Your task to perform on an android device: add a contact in the contacts app Image 0: 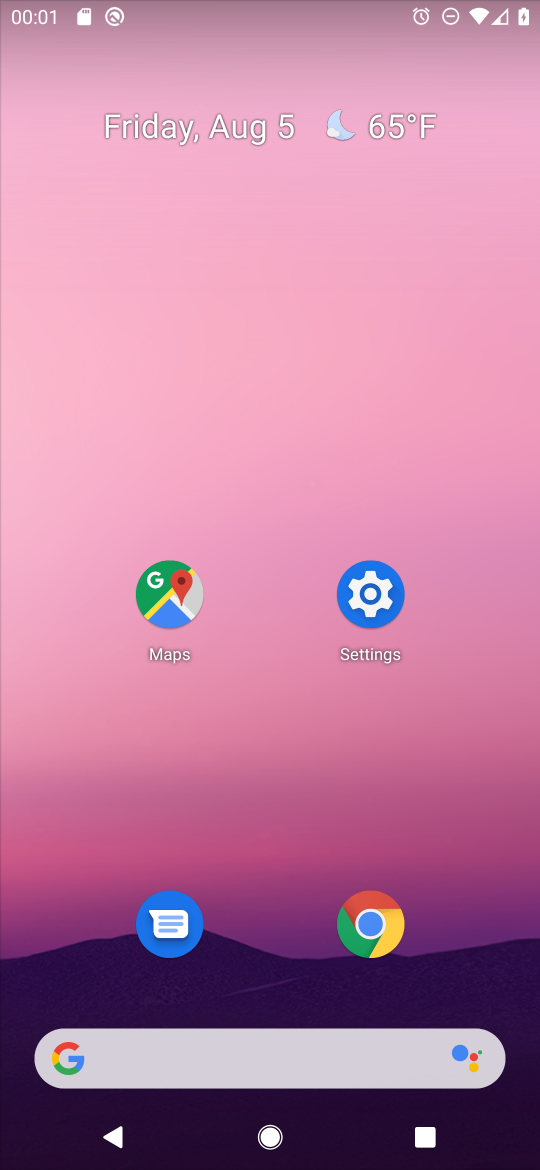
Step 0: press home button
Your task to perform on an android device: add a contact in the contacts app Image 1: 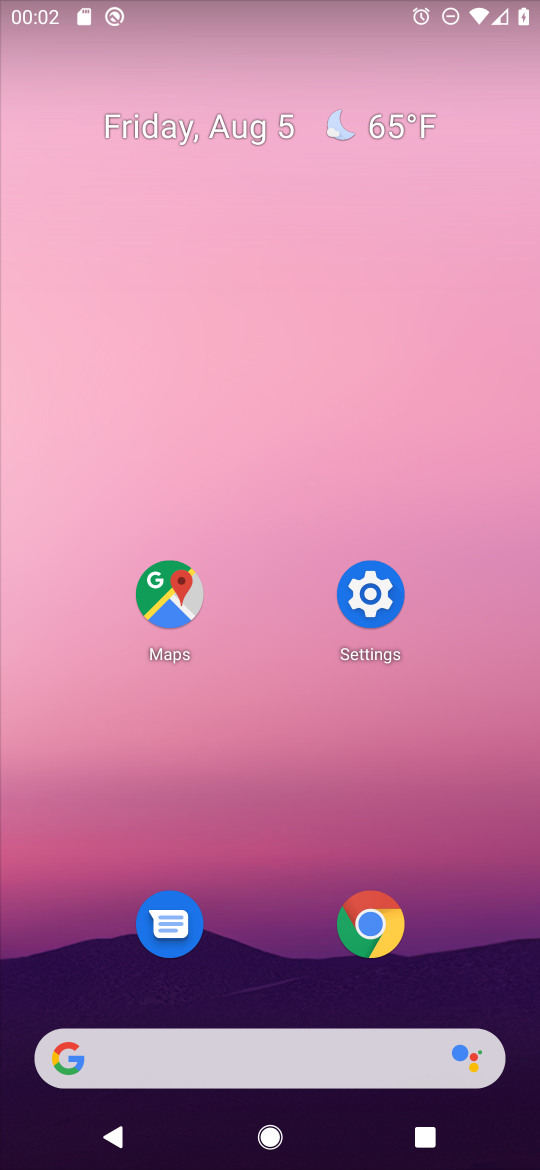
Step 1: drag from (295, 1062) to (336, 346)
Your task to perform on an android device: add a contact in the contacts app Image 2: 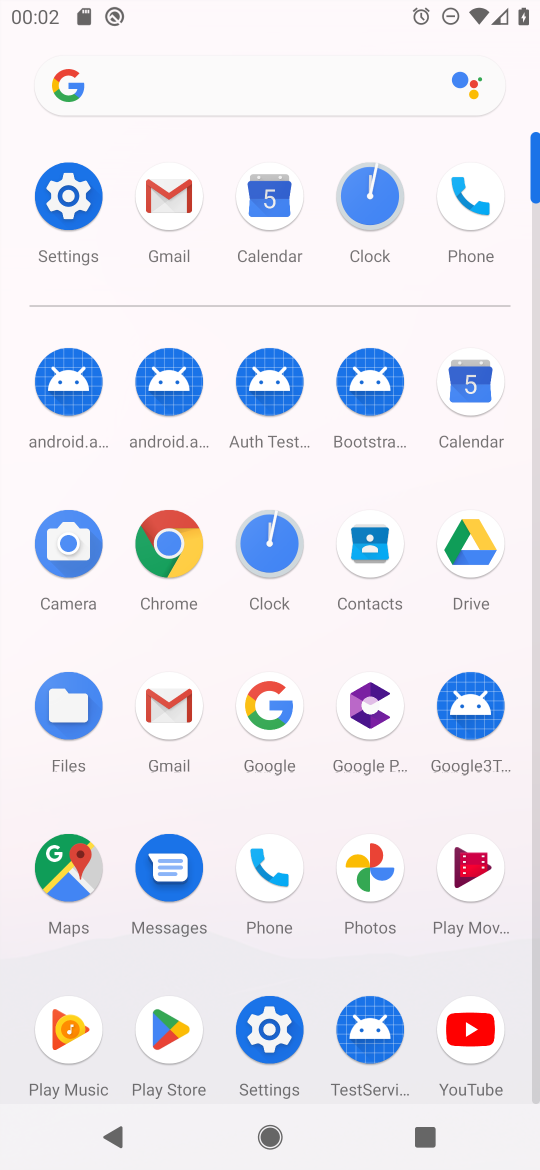
Step 2: click (365, 540)
Your task to perform on an android device: add a contact in the contacts app Image 3: 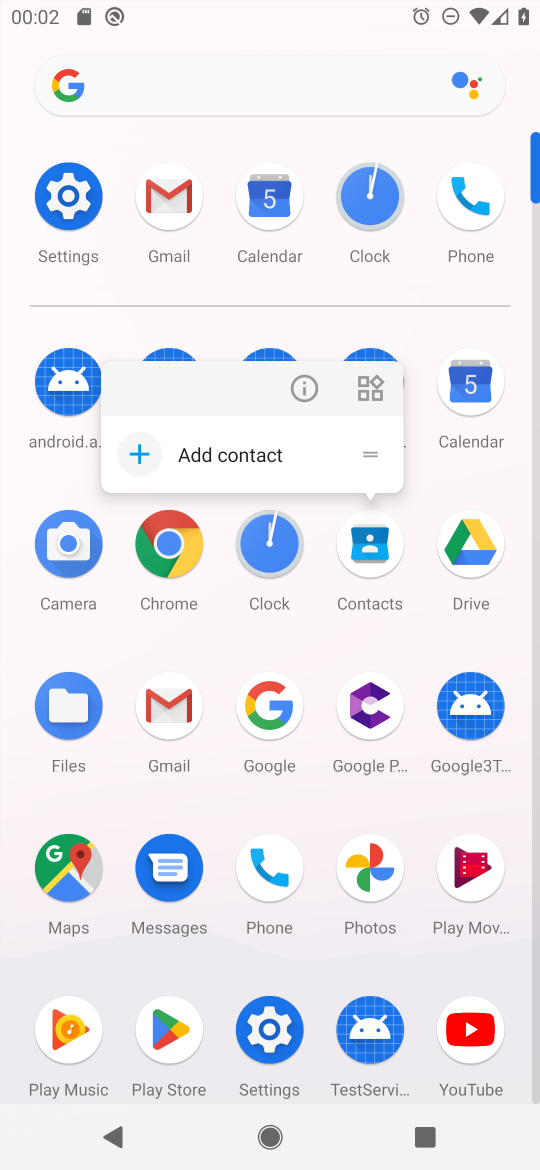
Step 3: click (365, 545)
Your task to perform on an android device: add a contact in the contacts app Image 4: 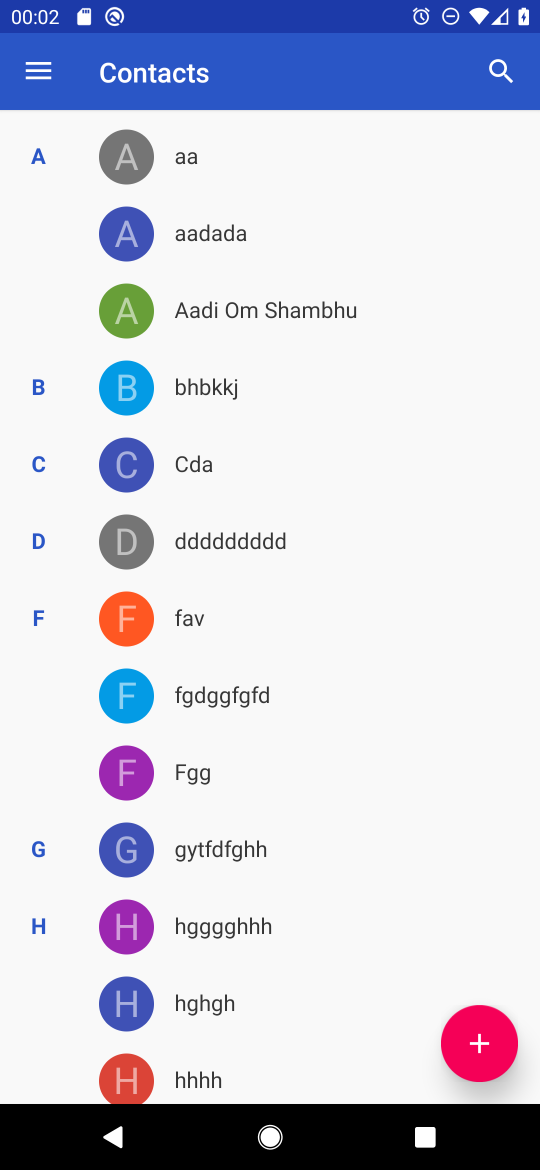
Step 4: click (488, 1035)
Your task to perform on an android device: add a contact in the contacts app Image 5: 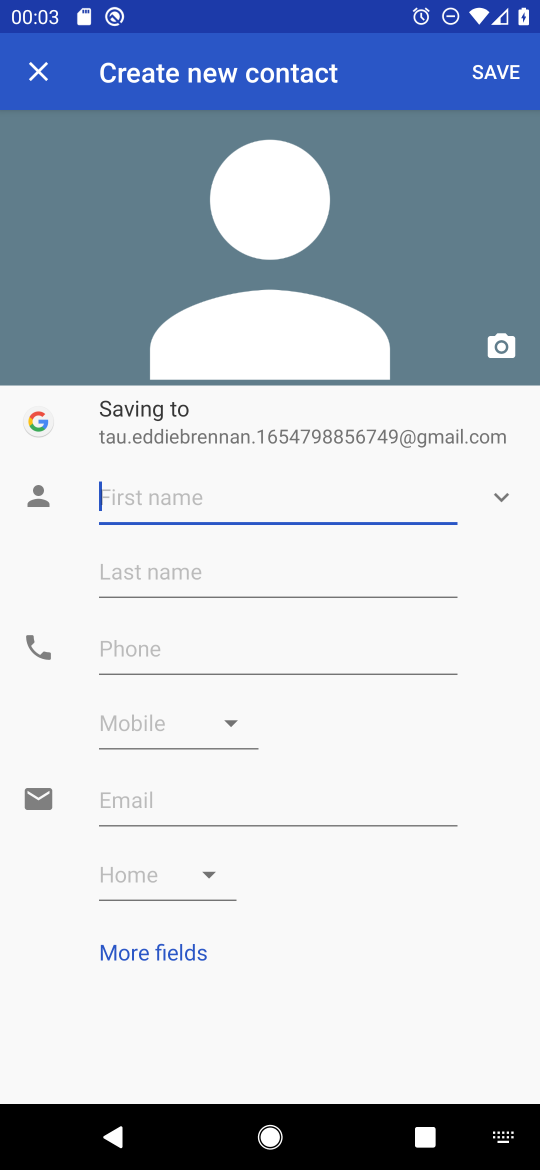
Step 5: type "nbaass"
Your task to perform on an android device: add a contact in the contacts app Image 6: 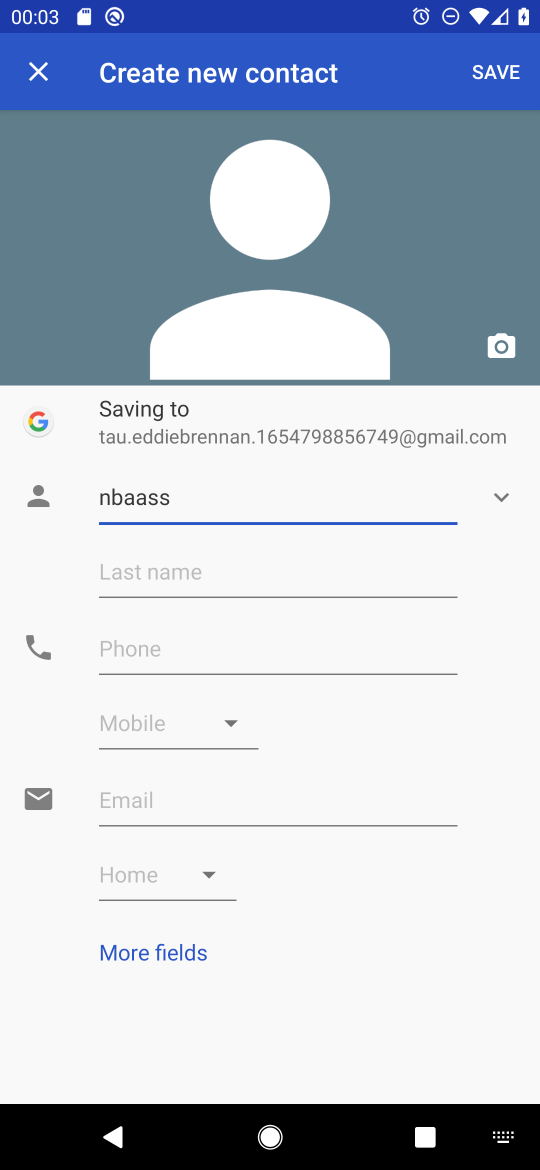
Step 6: click (167, 652)
Your task to perform on an android device: add a contact in the contacts app Image 7: 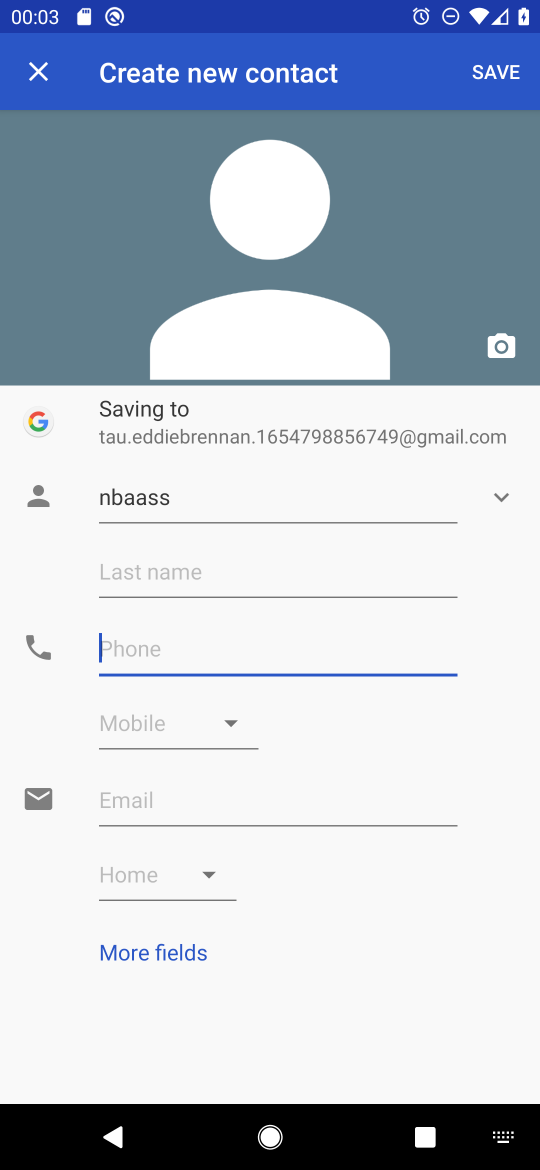
Step 7: type "4566554"
Your task to perform on an android device: add a contact in the contacts app Image 8: 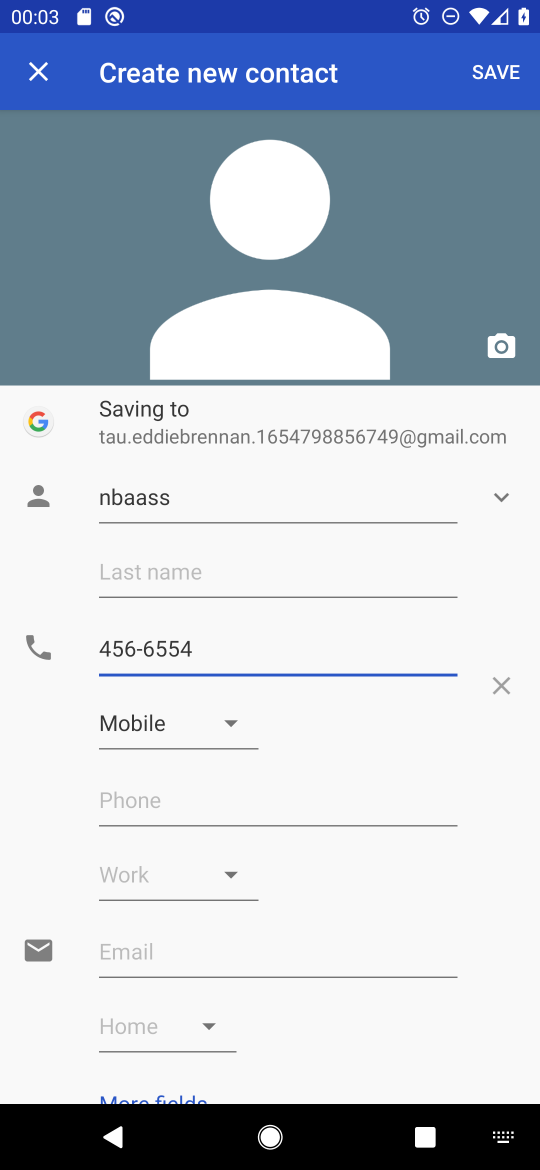
Step 8: click (496, 79)
Your task to perform on an android device: add a contact in the contacts app Image 9: 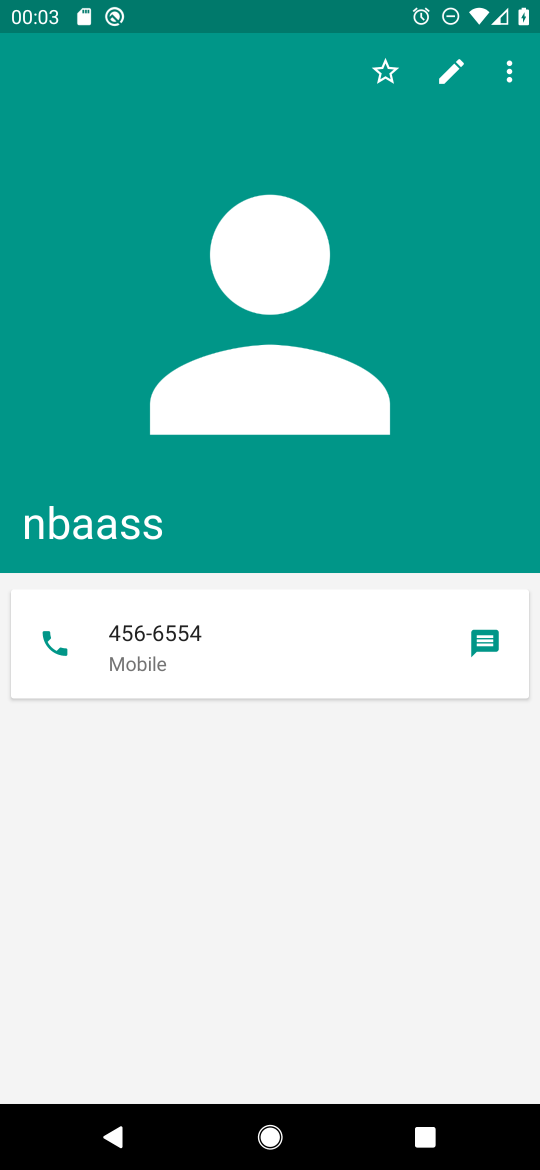
Step 9: task complete